Your task to perform on an android device: change keyboard looks Image 0: 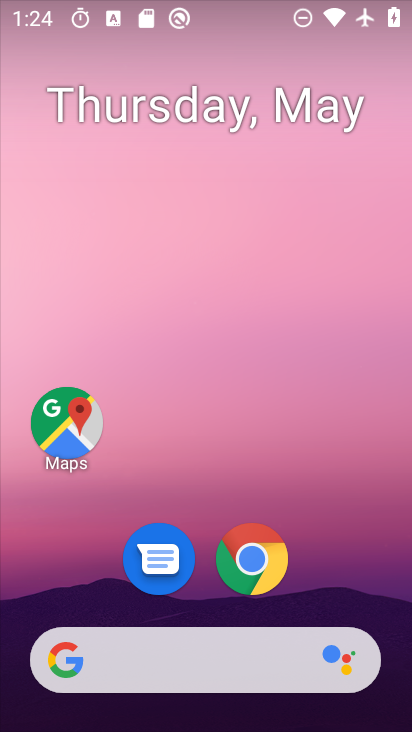
Step 0: drag from (293, 589) to (256, 194)
Your task to perform on an android device: change keyboard looks Image 1: 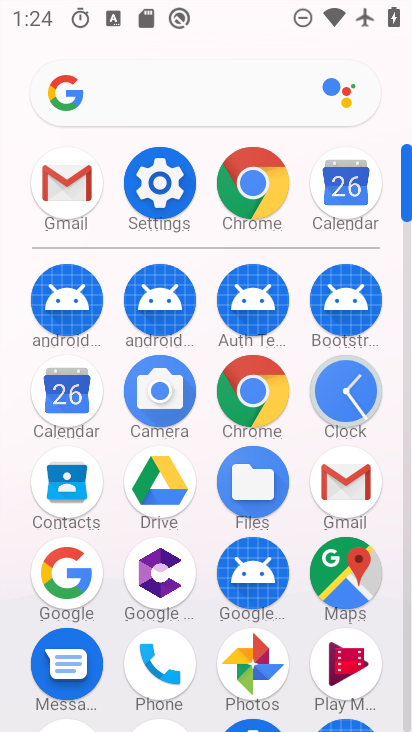
Step 1: click (173, 205)
Your task to perform on an android device: change keyboard looks Image 2: 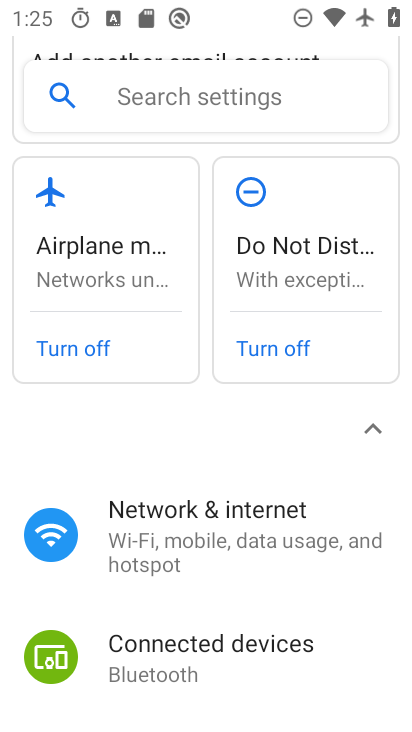
Step 2: drag from (227, 637) to (220, 213)
Your task to perform on an android device: change keyboard looks Image 3: 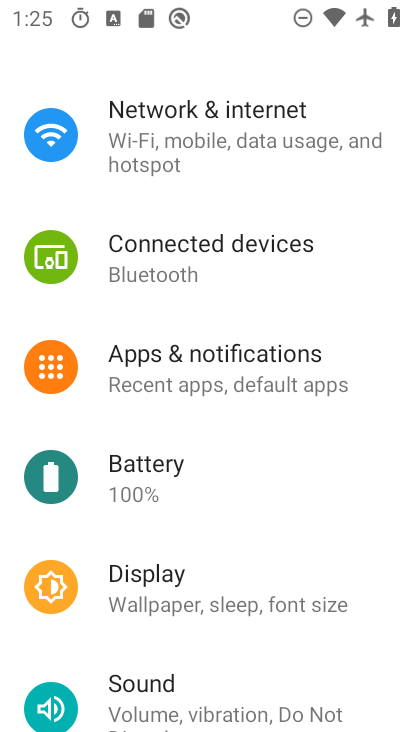
Step 3: drag from (181, 584) to (174, 253)
Your task to perform on an android device: change keyboard looks Image 4: 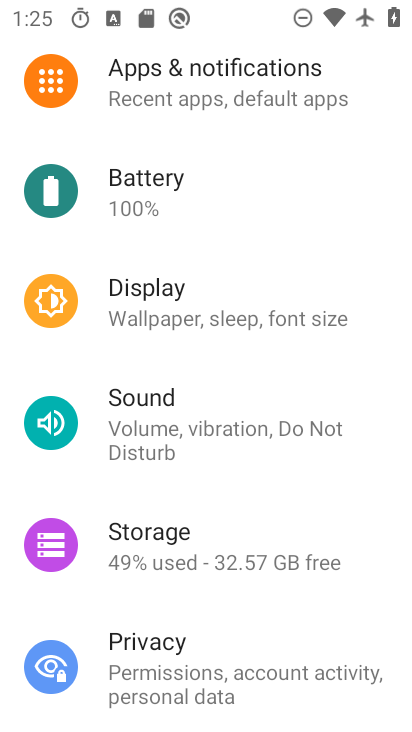
Step 4: drag from (169, 586) to (184, 262)
Your task to perform on an android device: change keyboard looks Image 5: 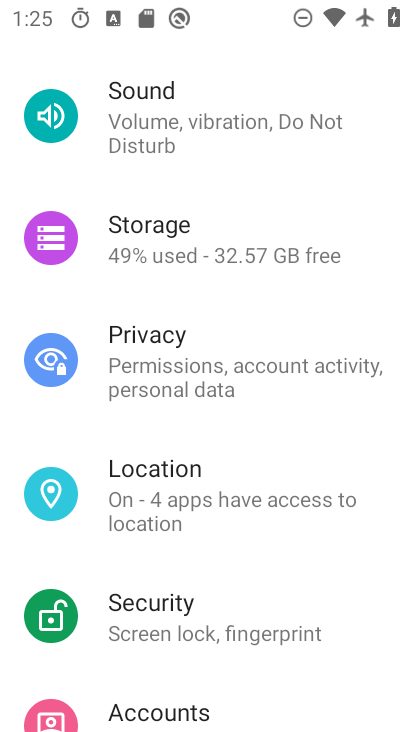
Step 5: drag from (224, 569) to (263, 259)
Your task to perform on an android device: change keyboard looks Image 6: 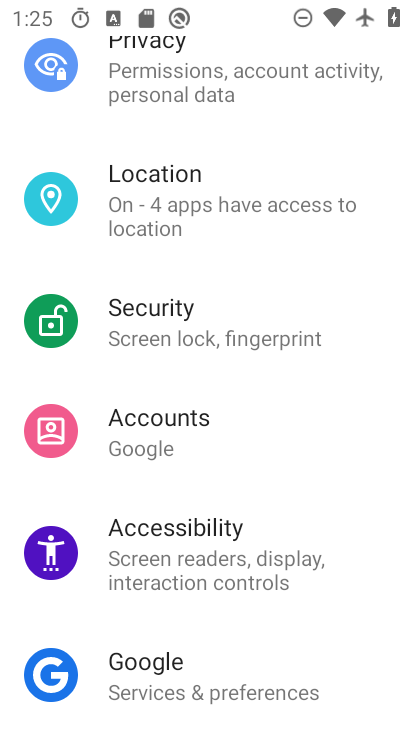
Step 6: drag from (216, 570) to (210, 290)
Your task to perform on an android device: change keyboard looks Image 7: 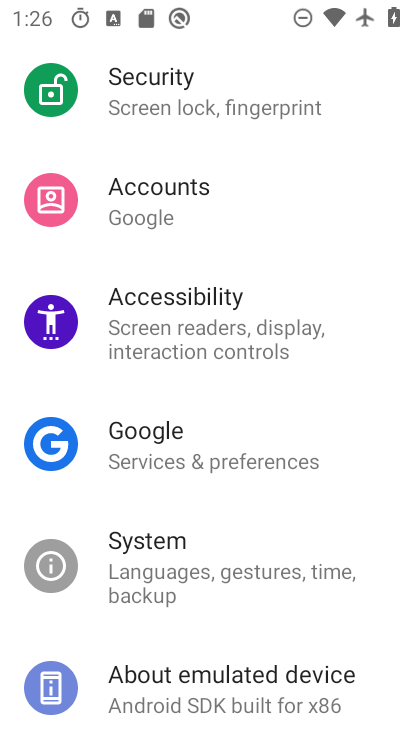
Step 7: click (234, 567)
Your task to perform on an android device: change keyboard looks Image 8: 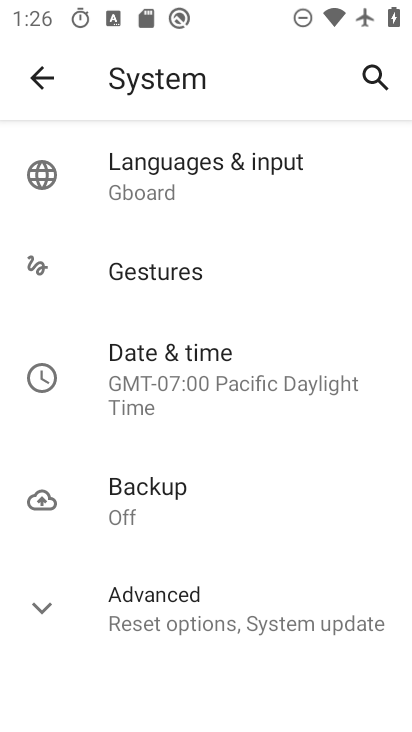
Step 8: click (202, 196)
Your task to perform on an android device: change keyboard looks Image 9: 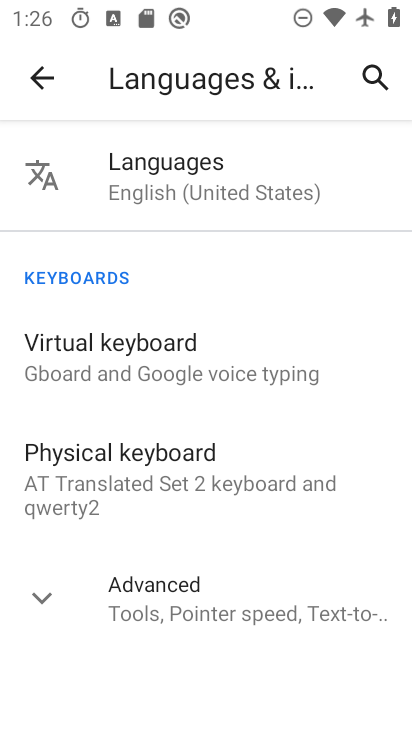
Step 9: click (169, 358)
Your task to perform on an android device: change keyboard looks Image 10: 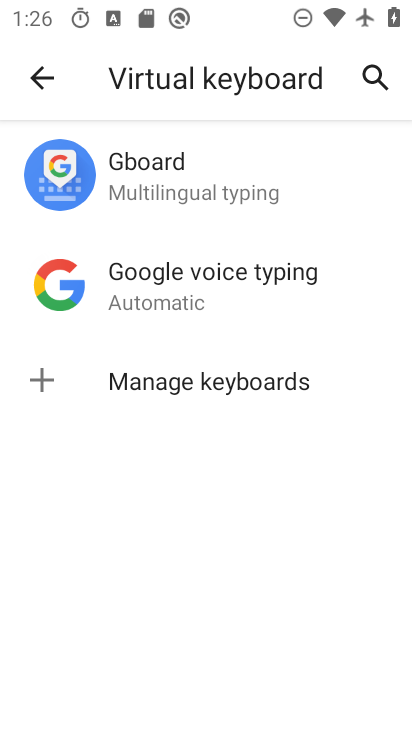
Step 10: click (195, 166)
Your task to perform on an android device: change keyboard looks Image 11: 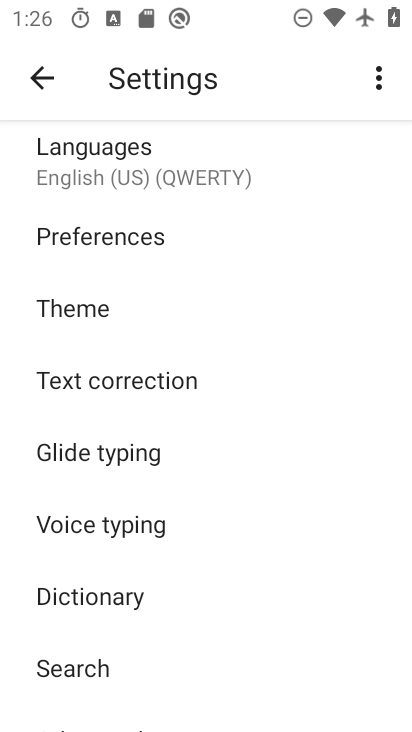
Step 11: click (118, 322)
Your task to perform on an android device: change keyboard looks Image 12: 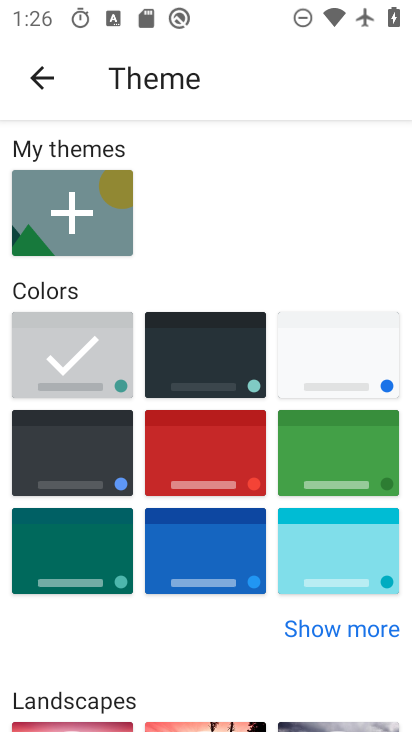
Step 12: click (206, 376)
Your task to perform on an android device: change keyboard looks Image 13: 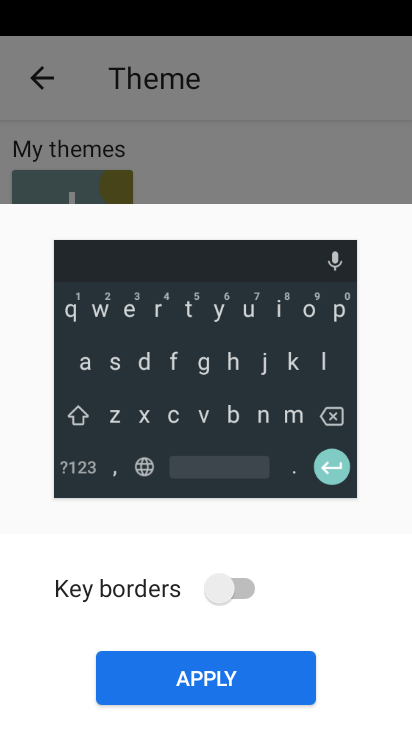
Step 13: click (208, 684)
Your task to perform on an android device: change keyboard looks Image 14: 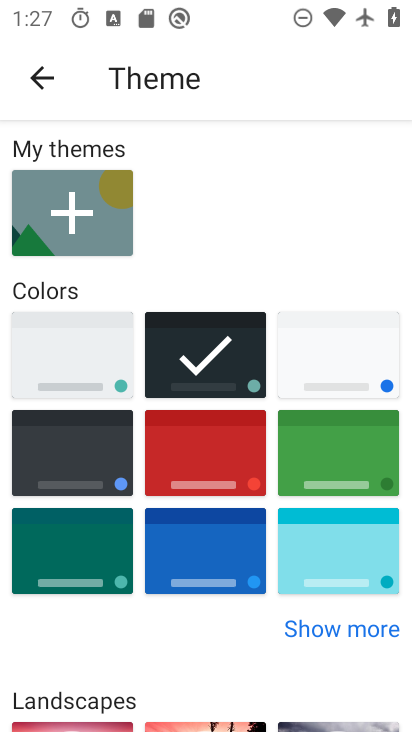
Step 14: task complete